Your task to perform on an android device: Open Android settings Image 0: 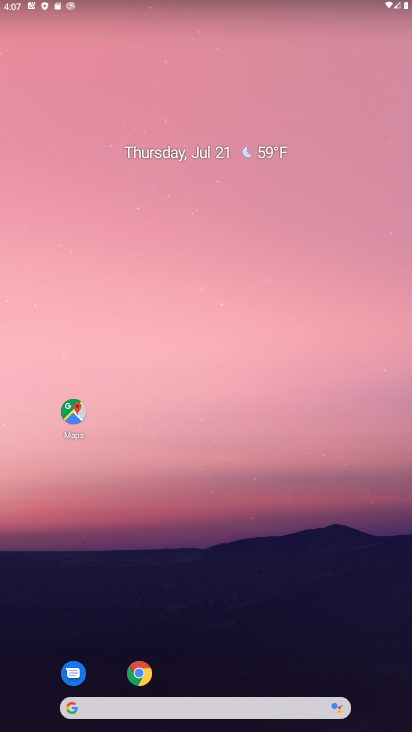
Step 0: drag from (383, 651) to (337, 105)
Your task to perform on an android device: Open Android settings Image 1: 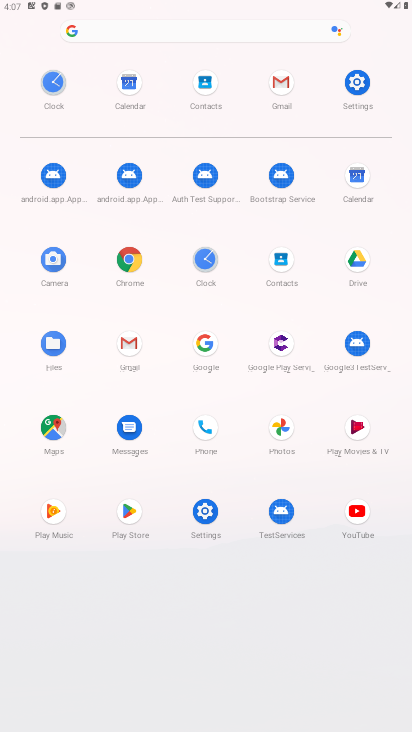
Step 1: click (205, 512)
Your task to perform on an android device: Open Android settings Image 2: 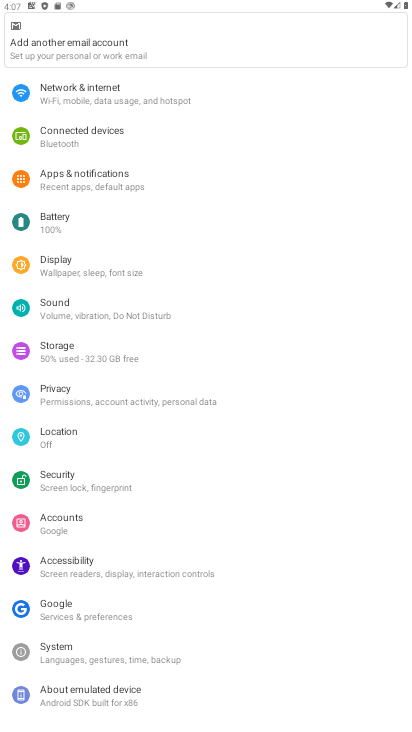
Step 2: click (68, 701)
Your task to perform on an android device: Open Android settings Image 3: 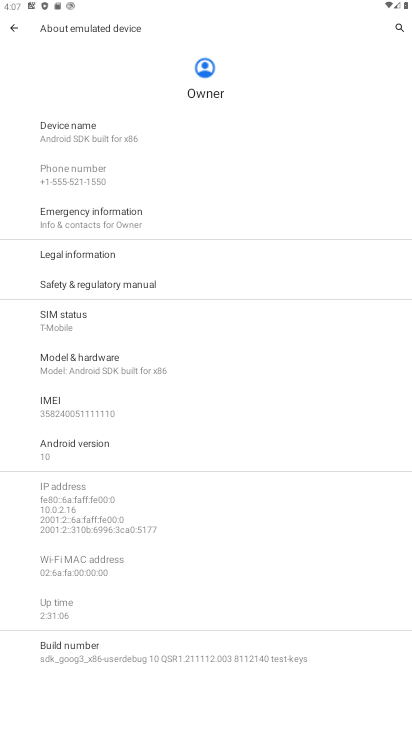
Step 3: task complete